Your task to perform on an android device: clear all cookies in the chrome app Image 0: 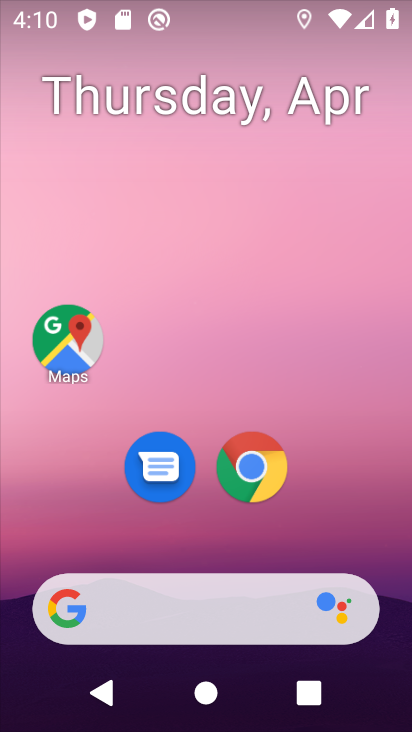
Step 0: click (256, 481)
Your task to perform on an android device: clear all cookies in the chrome app Image 1: 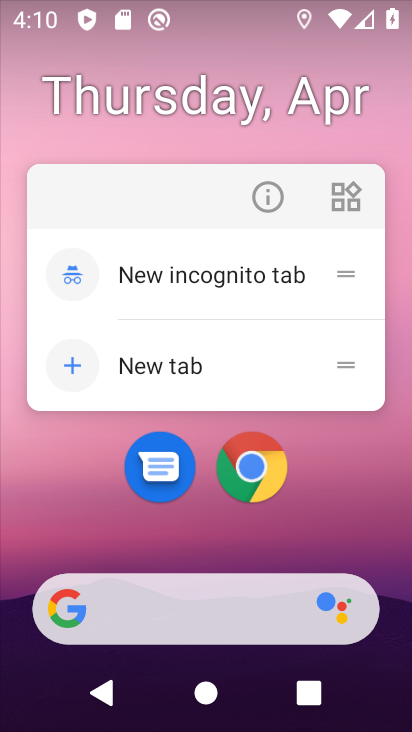
Step 1: click (255, 492)
Your task to perform on an android device: clear all cookies in the chrome app Image 2: 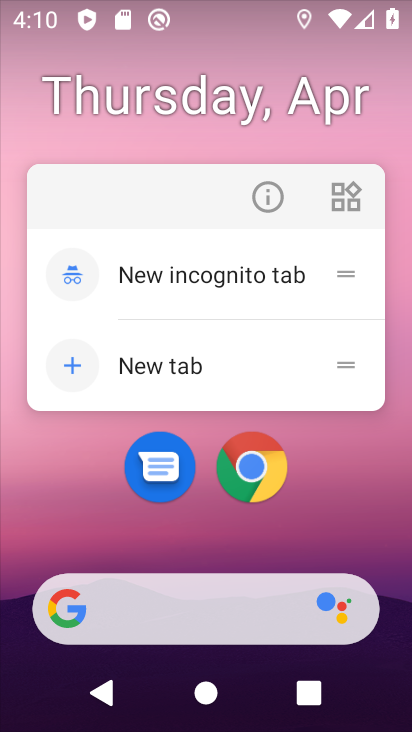
Step 2: click (274, 193)
Your task to perform on an android device: clear all cookies in the chrome app Image 3: 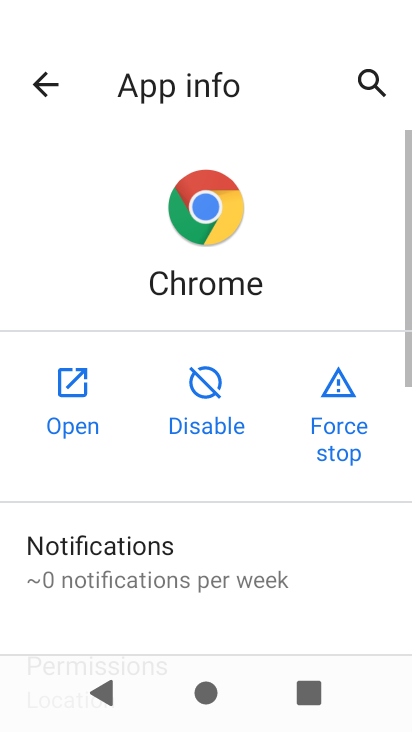
Step 3: click (80, 406)
Your task to perform on an android device: clear all cookies in the chrome app Image 4: 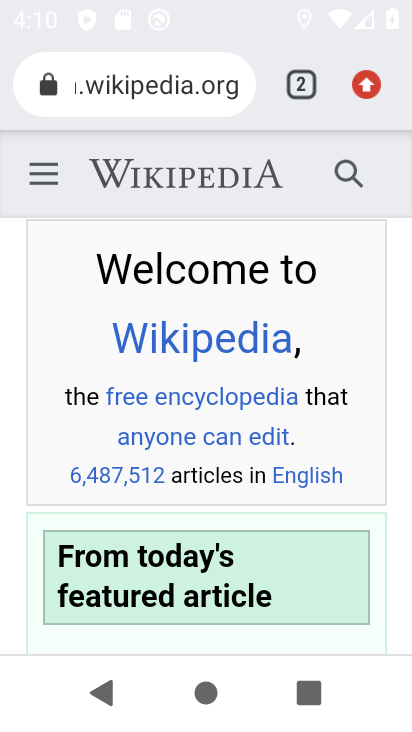
Step 4: click (362, 95)
Your task to perform on an android device: clear all cookies in the chrome app Image 5: 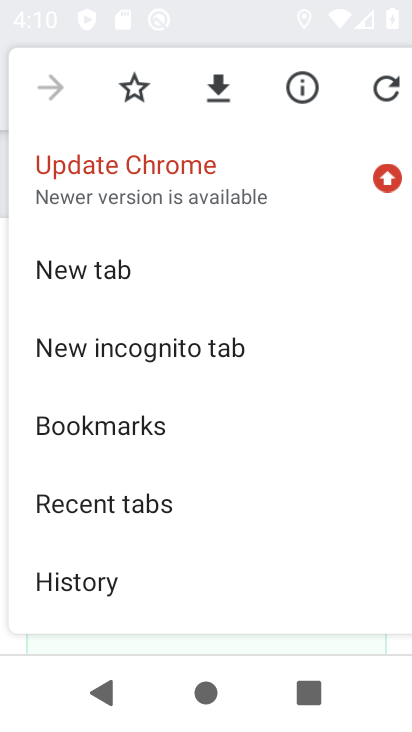
Step 5: drag from (152, 513) to (209, 214)
Your task to perform on an android device: clear all cookies in the chrome app Image 6: 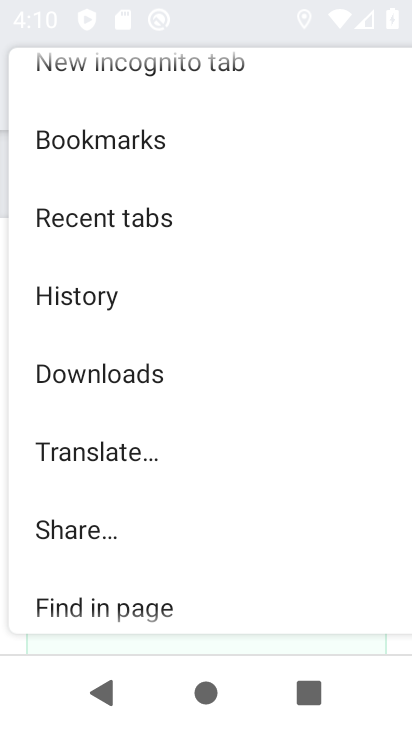
Step 6: click (81, 299)
Your task to perform on an android device: clear all cookies in the chrome app Image 7: 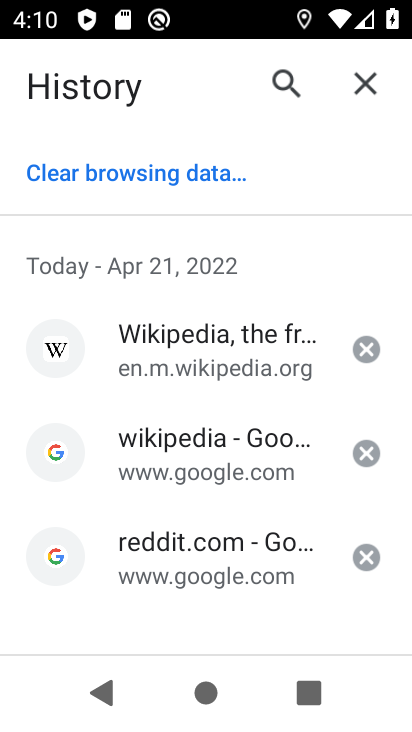
Step 7: click (148, 183)
Your task to perform on an android device: clear all cookies in the chrome app Image 8: 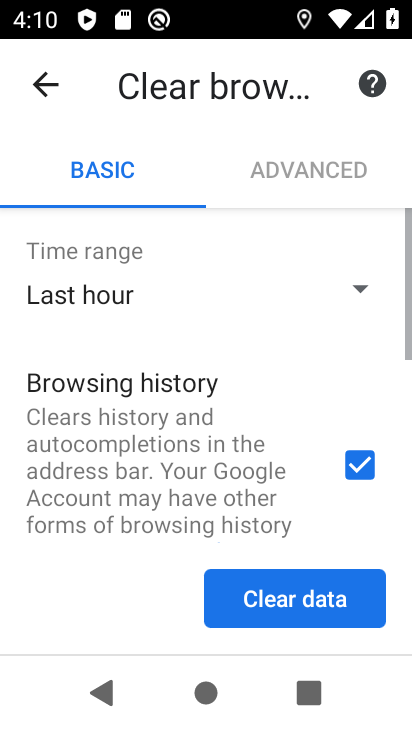
Step 8: drag from (219, 491) to (269, 181)
Your task to perform on an android device: clear all cookies in the chrome app Image 9: 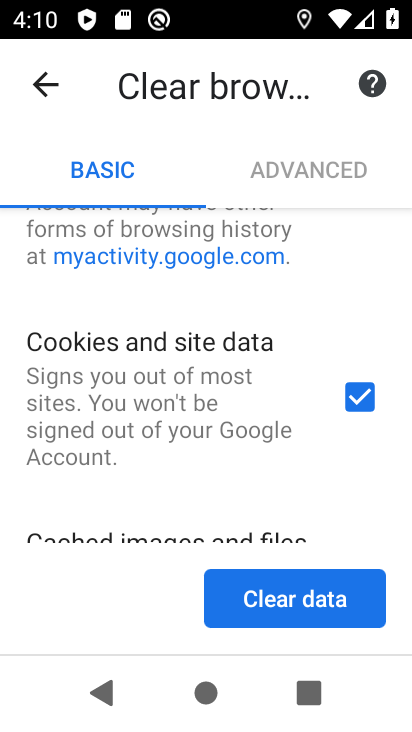
Step 9: click (320, 229)
Your task to perform on an android device: clear all cookies in the chrome app Image 10: 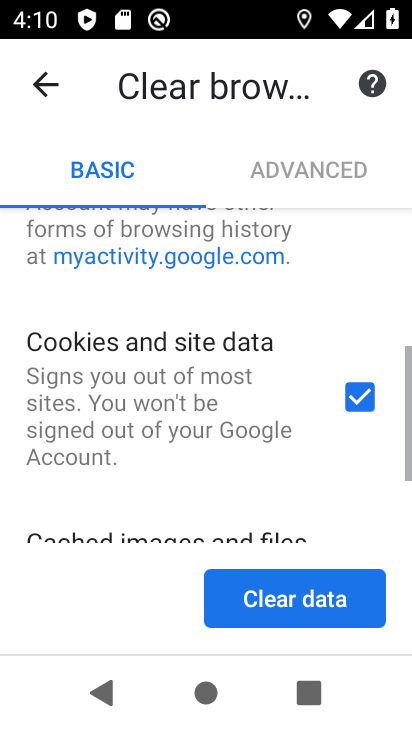
Step 10: drag from (256, 448) to (261, 164)
Your task to perform on an android device: clear all cookies in the chrome app Image 11: 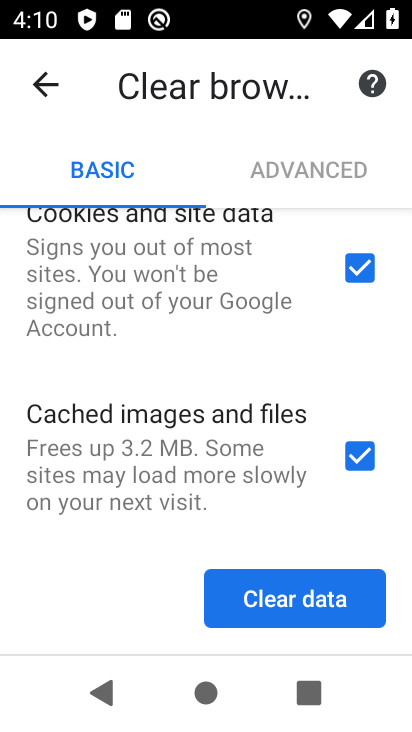
Step 11: click (296, 448)
Your task to perform on an android device: clear all cookies in the chrome app Image 12: 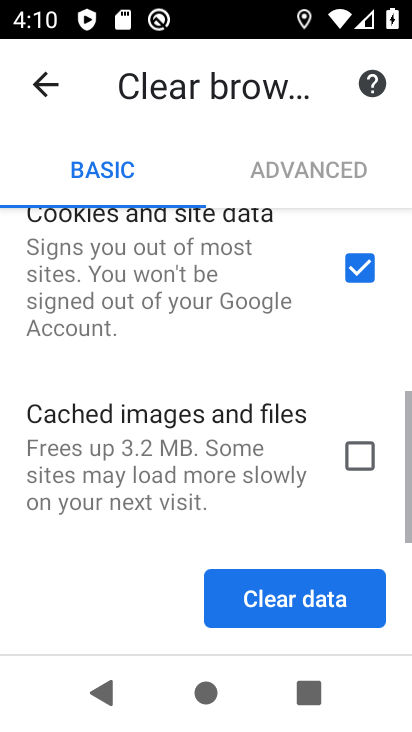
Step 12: drag from (255, 353) to (286, 717)
Your task to perform on an android device: clear all cookies in the chrome app Image 13: 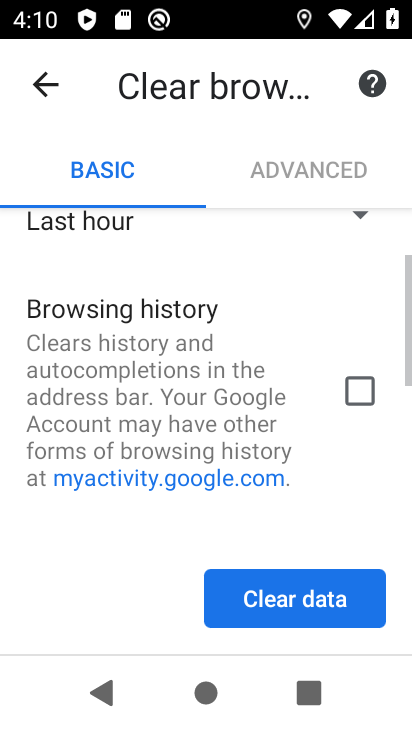
Step 13: click (277, 602)
Your task to perform on an android device: clear all cookies in the chrome app Image 14: 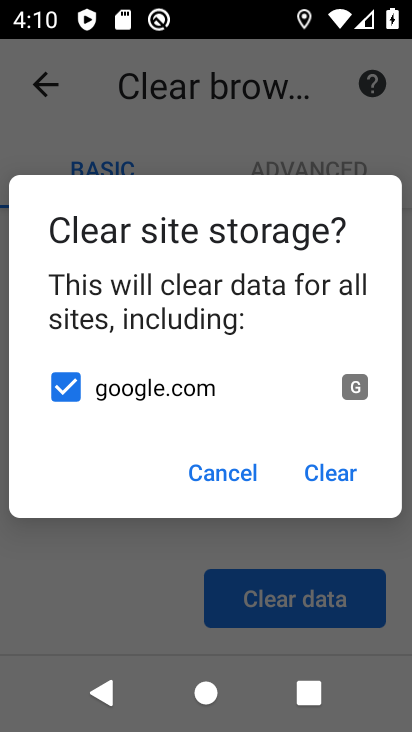
Step 14: click (334, 474)
Your task to perform on an android device: clear all cookies in the chrome app Image 15: 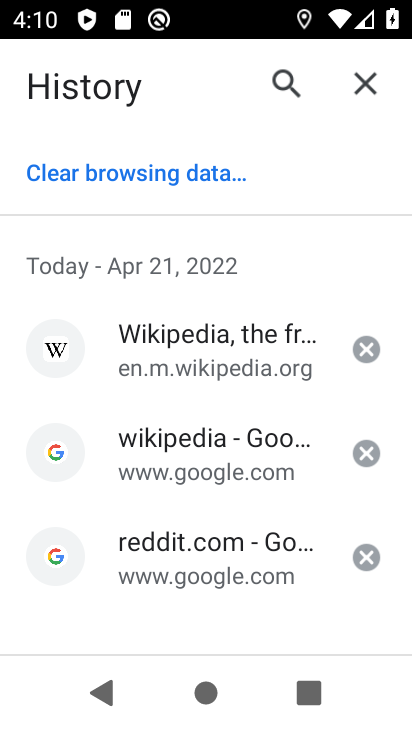
Step 15: task complete